Your task to perform on an android device: Find coffee shops on Maps Image 0: 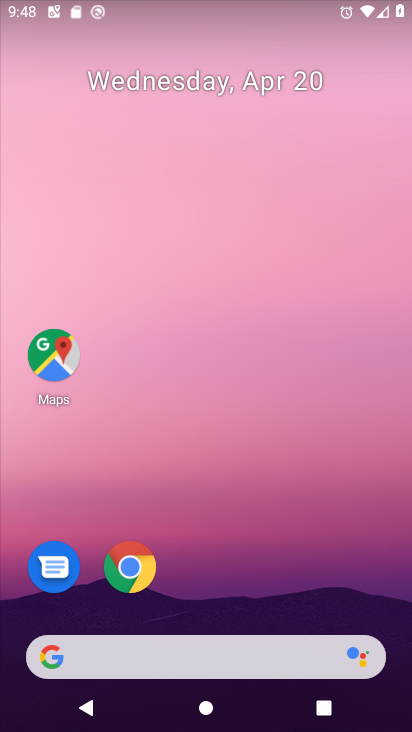
Step 0: drag from (343, 598) to (329, 180)
Your task to perform on an android device: Find coffee shops on Maps Image 1: 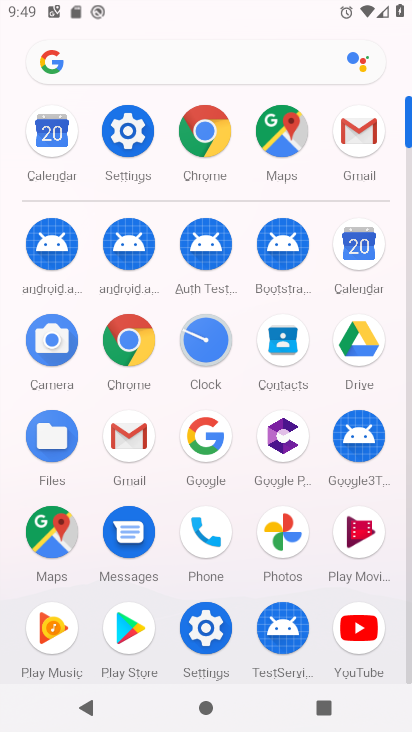
Step 1: click (45, 527)
Your task to perform on an android device: Find coffee shops on Maps Image 2: 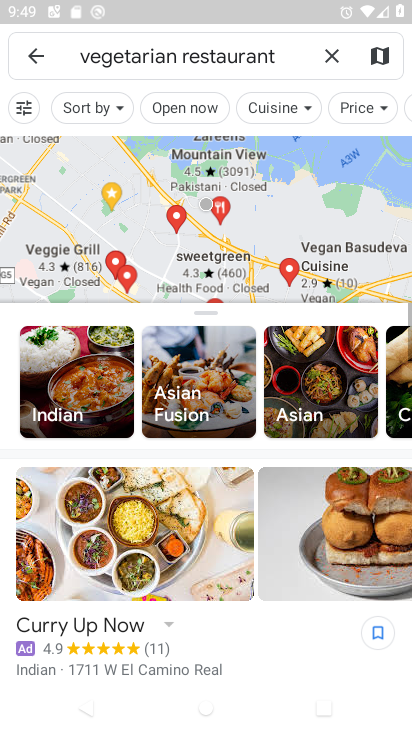
Step 2: click (287, 53)
Your task to perform on an android device: Find coffee shops on Maps Image 3: 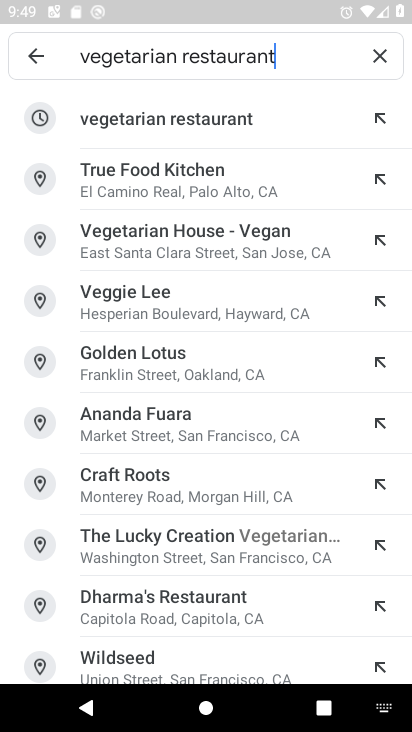
Step 3: click (377, 45)
Your task to perform on an android device: Find coffee shops on Maps Image 4: 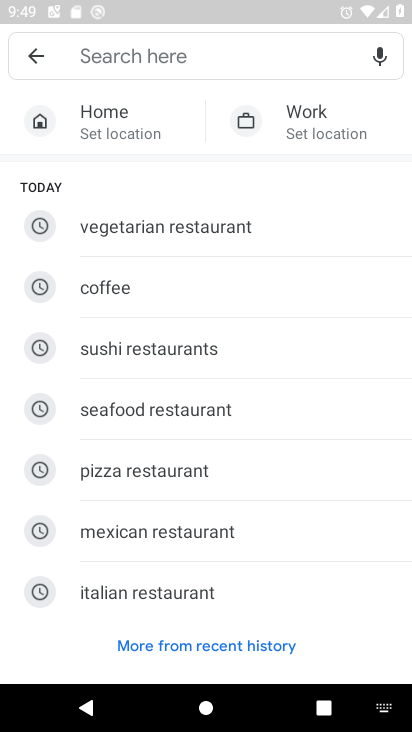
Step 4: type "coffee"
Your task to perform on an android device: Find coffee shops on Maps Image 5: 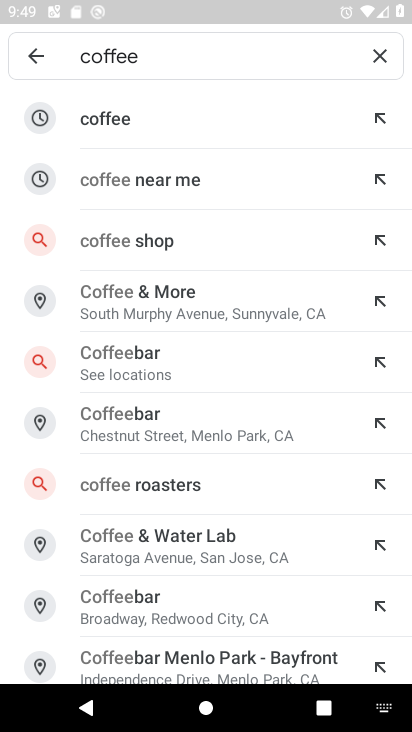
Step 5: click (169, 122)
Your task to perform on an android device: Find coffee shops on Maps Image 6: 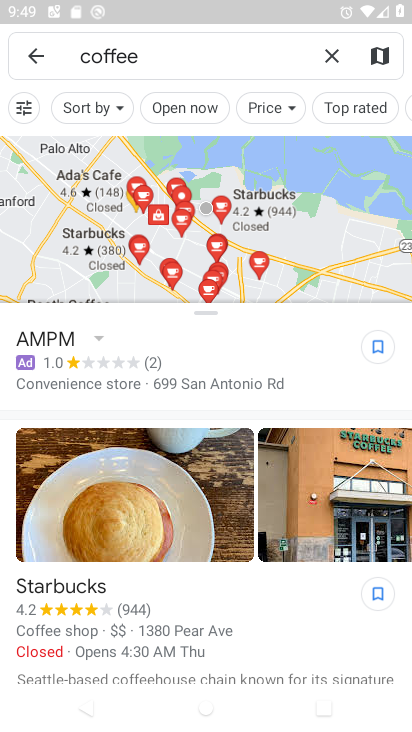
Step 6: task complete